Your task to perform on an android device: Go to network settings Image 0: 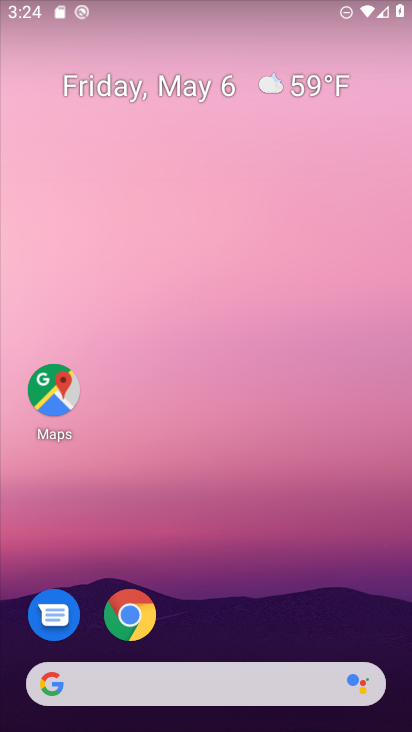
Step 0: drag from (322, 629) to (253, 104)
Your task to perform on an android device: Go to network settings Image 1: 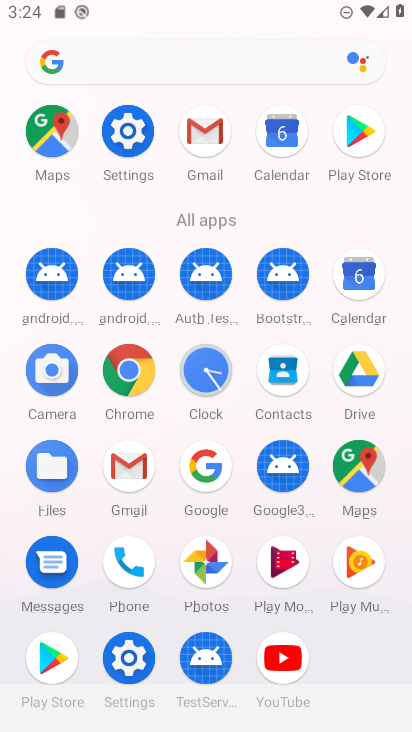
Step 1: click (137, 126)
Your task to perform on an android device: Go to network settings Image 2: 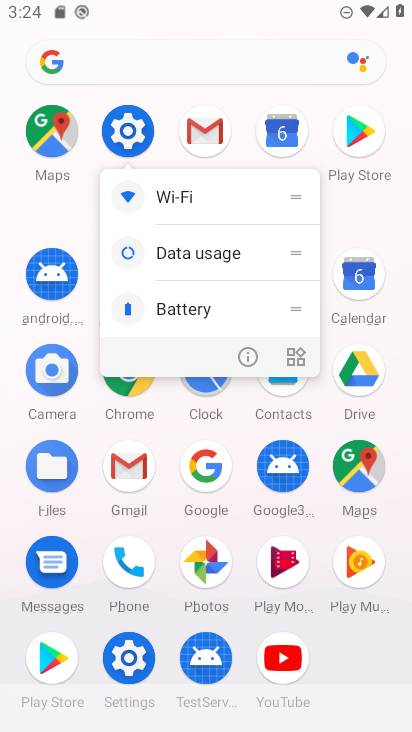
Step 2: click (127, 118)
Your task to perform on an android device: Go to network settings Image 3: 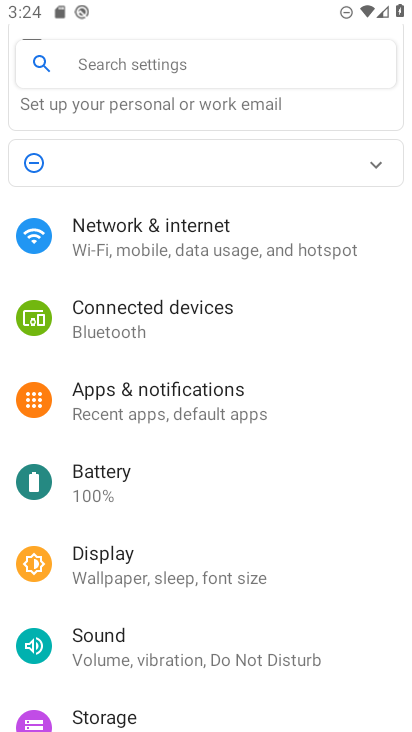
Step 3: click (202, 235)
Your task to perform on an android device: Go to network settings Image 4: 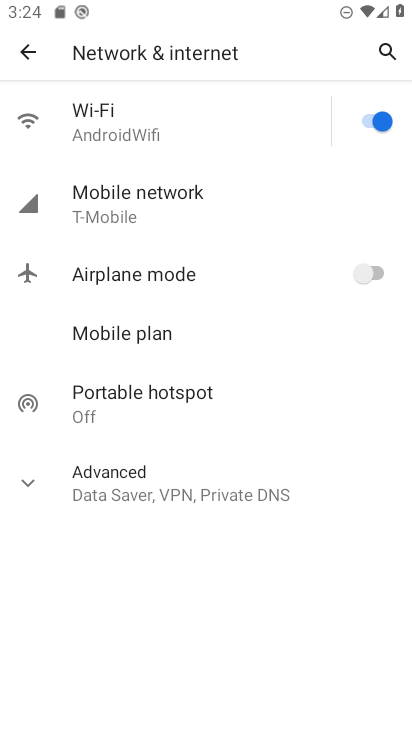
Step 4: task complete